Your task to perform on an android device: toggle sleep mode Image 0: 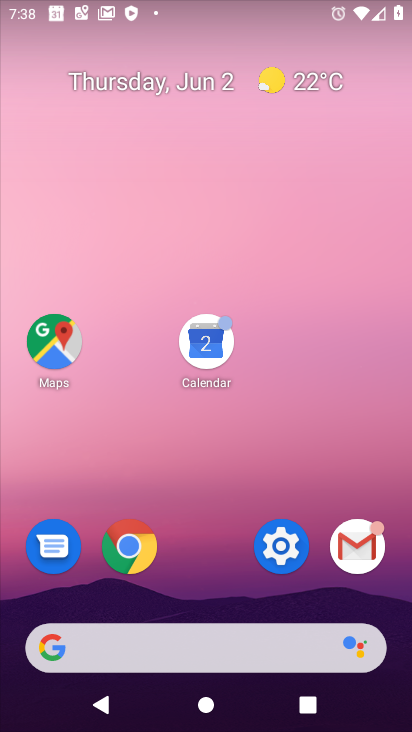
Step 0: press home button
Your task to perform on an android device: toggle sleep mode Image 1: 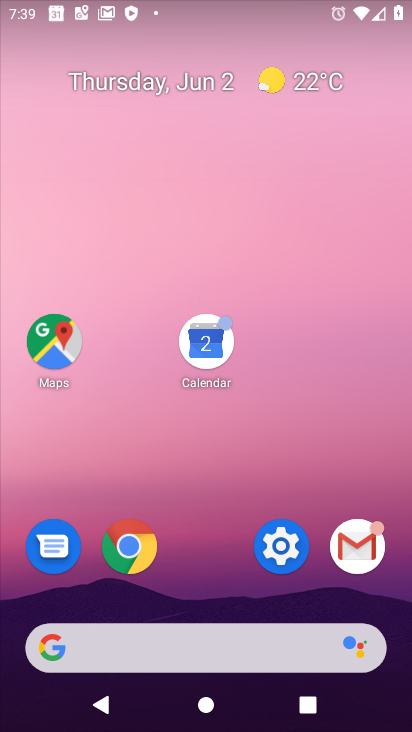
Step 1: click (279, 552)
Your task to perform on an android device: toggle sleep mode Image 2: 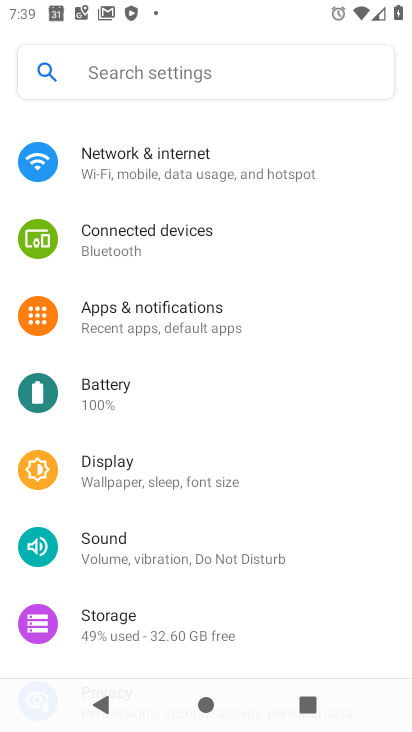
Step 2: click (271, 554)
Your task to perform on an android device: toggle sleep mode Image 3: 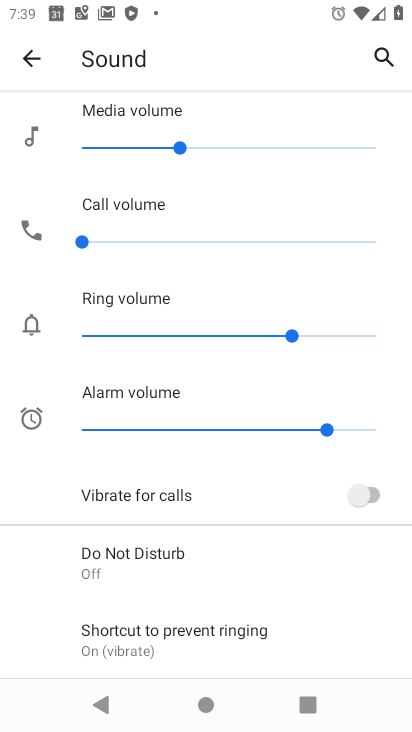
Step 3: click (275, 559)
Your task to perform on an android device: toggle sleep mode Image 4: 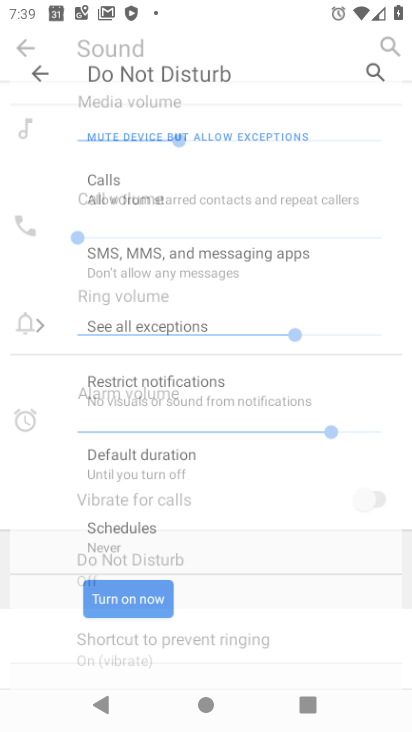
Step 4: click (277, 540)
Your task to perform on an android device: toggle sleep mode Image 5: 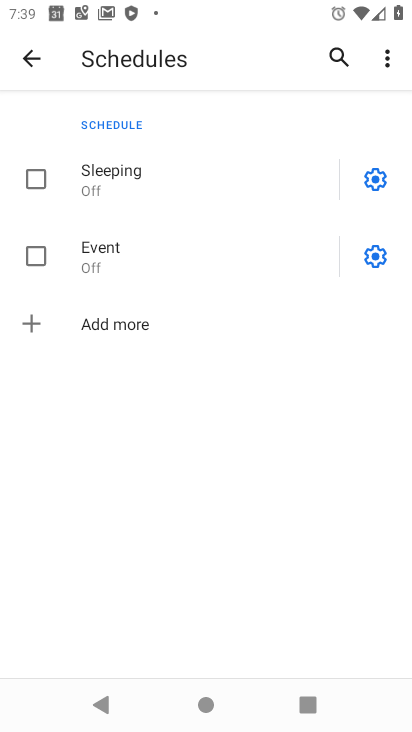
Step 5: click (30, 70)
Your task to perform on an android device: toggle sleep mode Image 6: 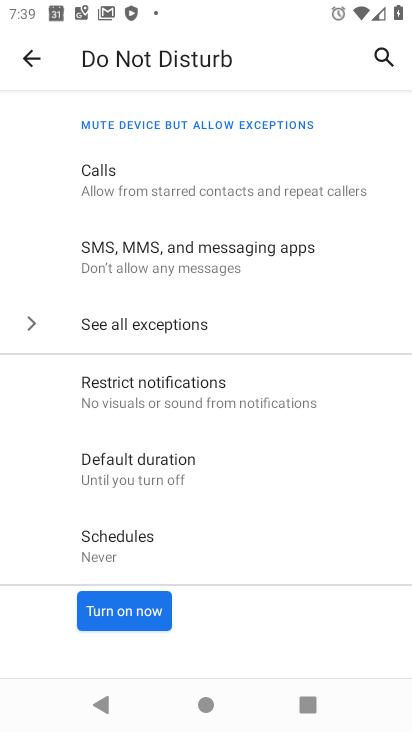
Step 6: click (140, 554)
Your task to perform on an android device: toggle sleep mode Image 7: 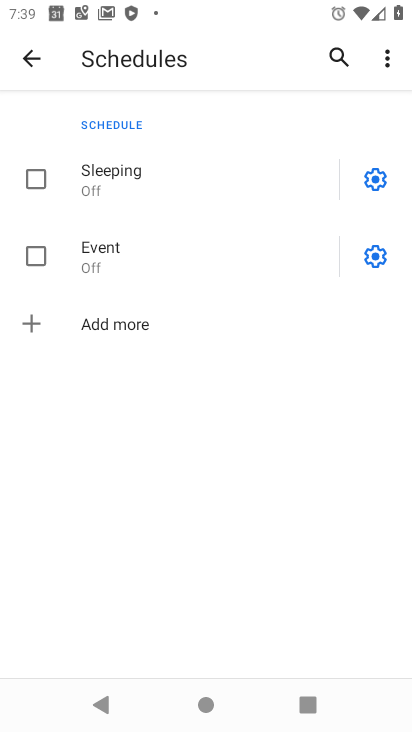
Step 7: click (111, 183)
Your task to perform on an android device: toggle sleep mode Image 8: 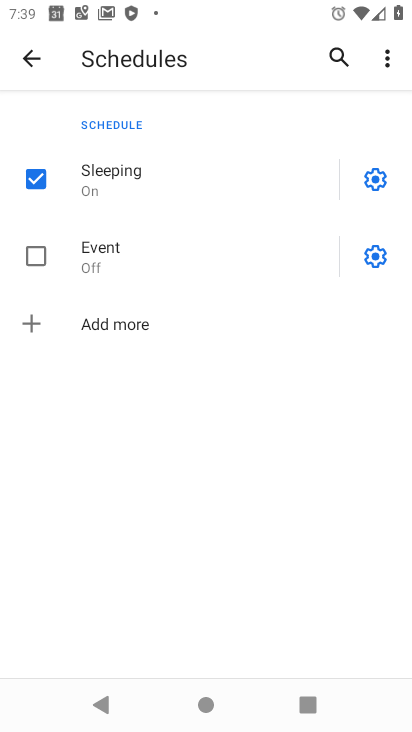
Step 8: task complete